Your task to perform on an android device: Open maps Image 0: 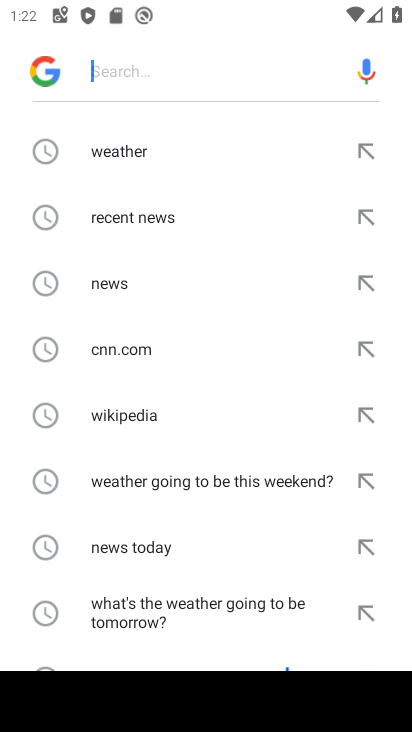
Step 0: press home button
Your task to perform on an android device: Open maps Image 1: 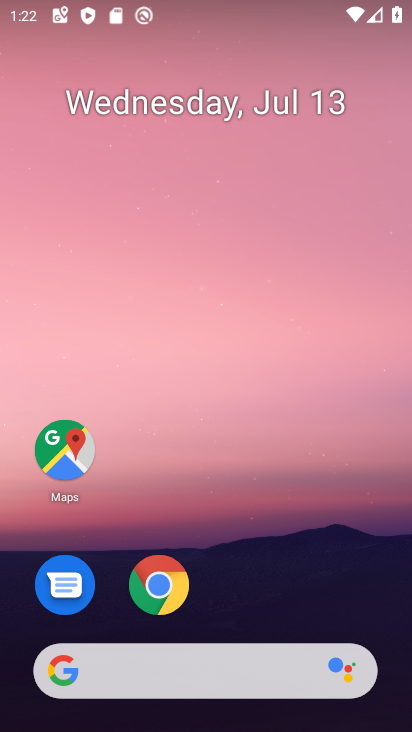
Step 1: click (67, 452)
Your task to perform on an android device: Open maps Image 2: 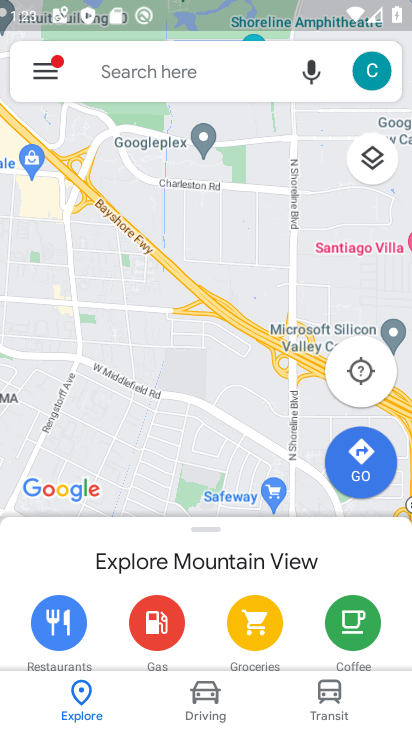
Step 2: task complete